Your task to perform on an android device: Open my contact list Image 0: 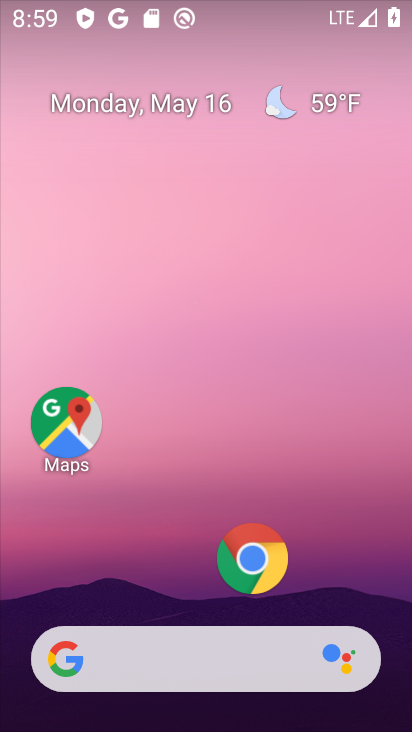
Step 0: drag from (132, 581) to (203, 116)
Your task to perform on an android device: Open my contact list Image 1: 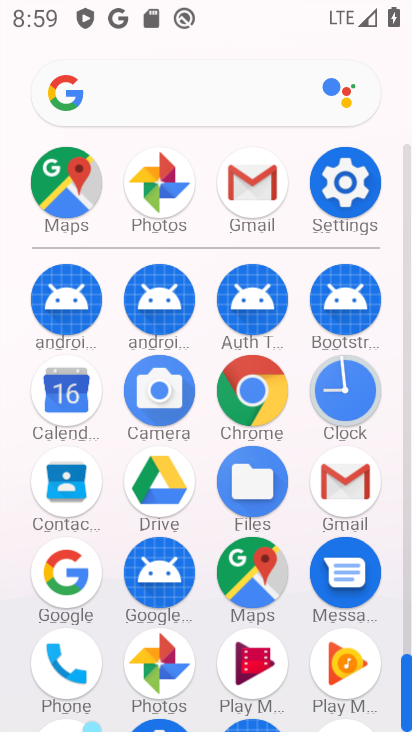
Step 1: click (73, 487)
Your task to perform on an android device: Open my contact list Image 2: 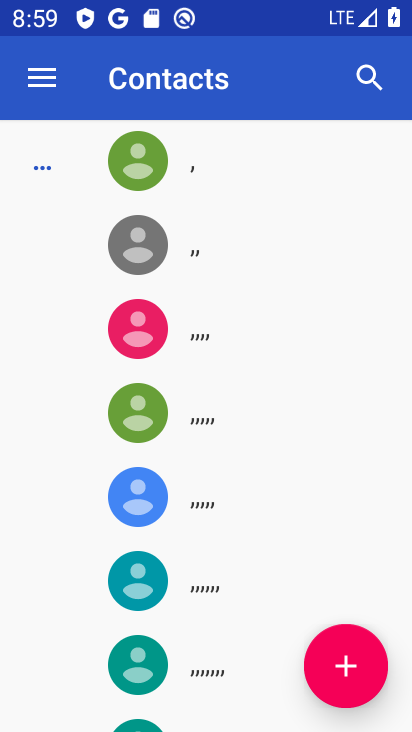
Step 2: task complete